Your task to perform on an android device: Open the Play Movies app and select the watchlist tab. Image 0: 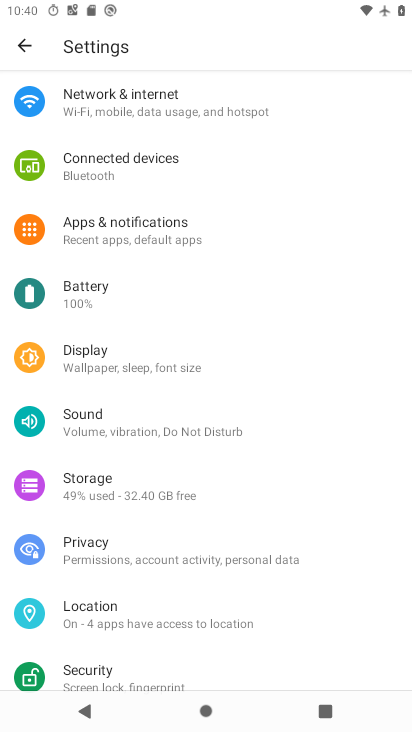
Step 0: press home button
Your task to perform on an android device: Open the Play Movies app and select the watchlist tab. Image 1: 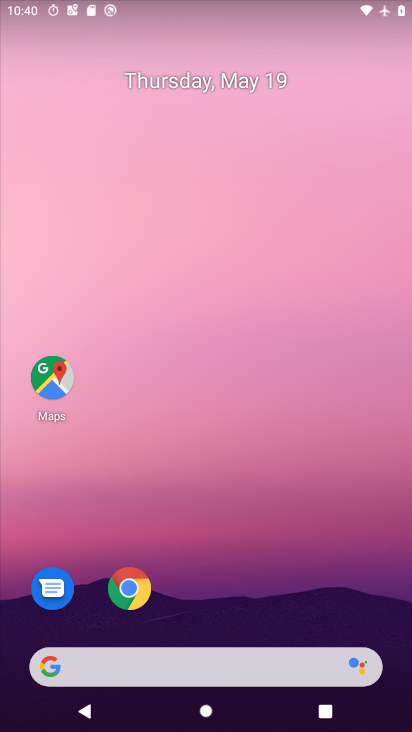
Step 1: drag from (180, 670) to (359, 26)
Your task to perform on an android device: Open the Play Movies app and select the watchlist tab. Image 2: 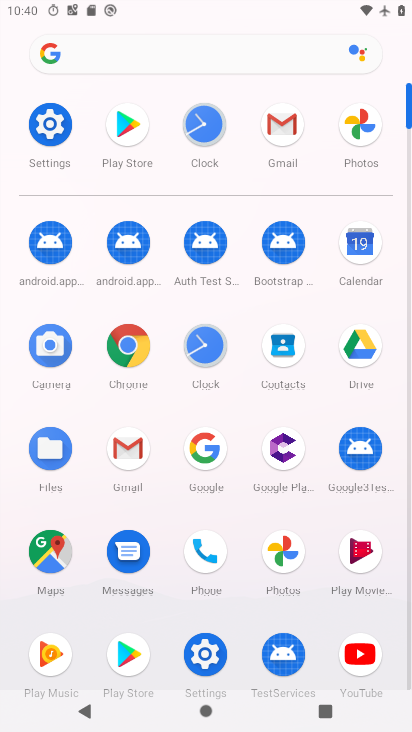
Step 2: click (362, 550)
Your task to perform on an android device: Open the Play Movies app and select the watchlist tab. Image 3: 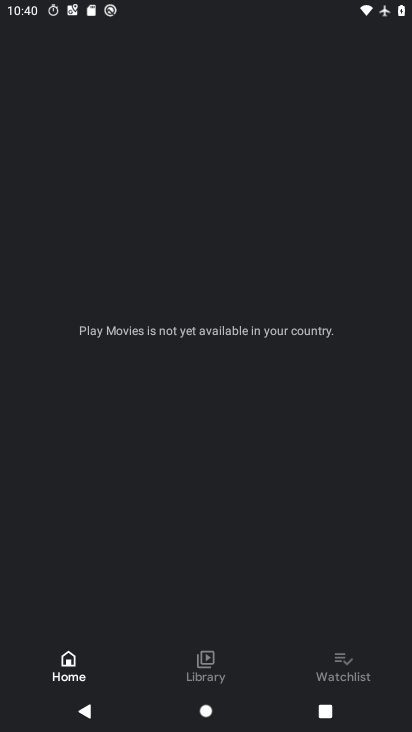
Step 3: click (333, 665)
Your task to perform on an android device: Open the Play Movies app and select the watchlist tab. Image 4: 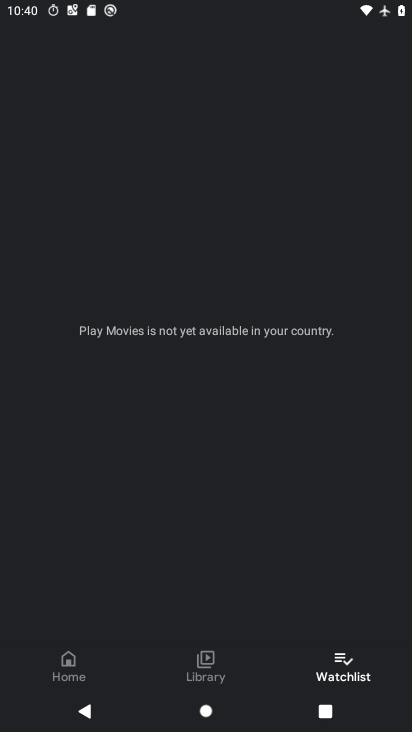
Step 4: task complete